Your task to perform on an android device: Open Amazon Image 0: 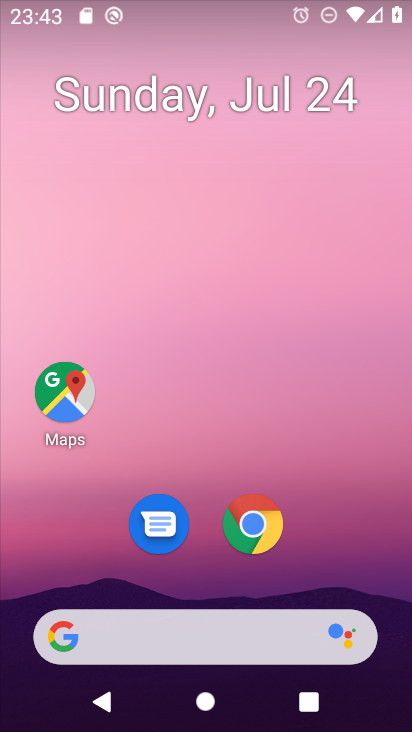
Step 0: press home button
Your task to perform on an android device: Open Amazon Image 1: 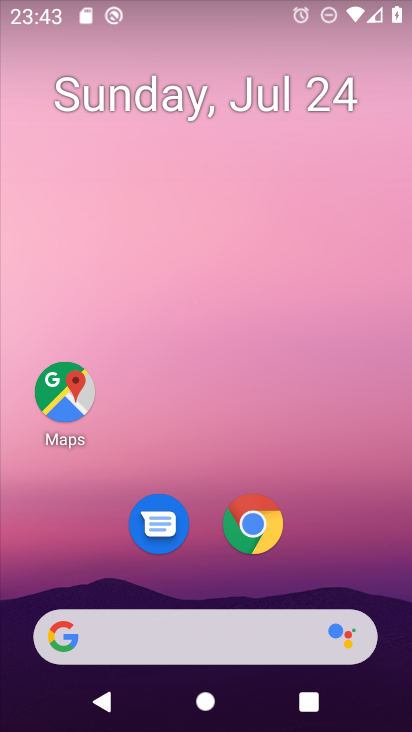
Step 1: click (245, 522)
Your task to perform on an android device: Open Amazon Image 2: 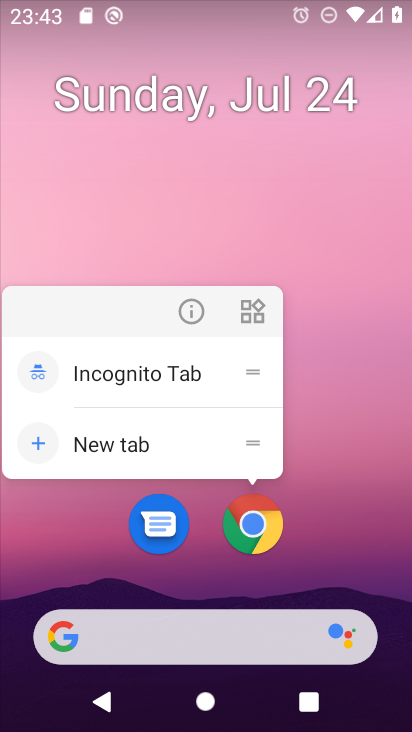
Step 2: click (243, 515)
Your task to perform on an android device: Open Amazon Image 3: 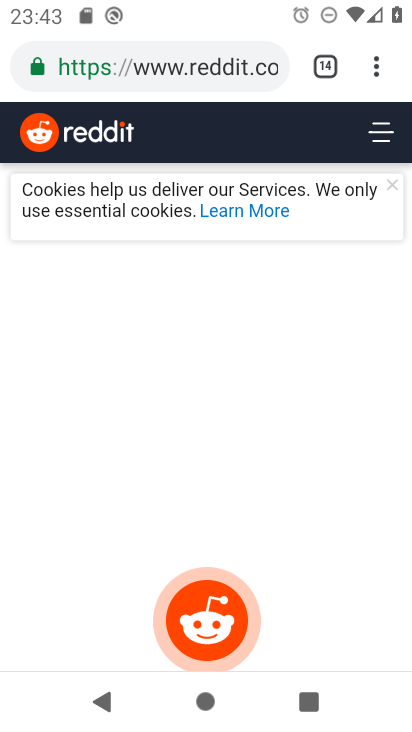
Step 3: drag from (374, 61) to (186, 128)
Your task to perform on an android device: Open Amazon Image 4: 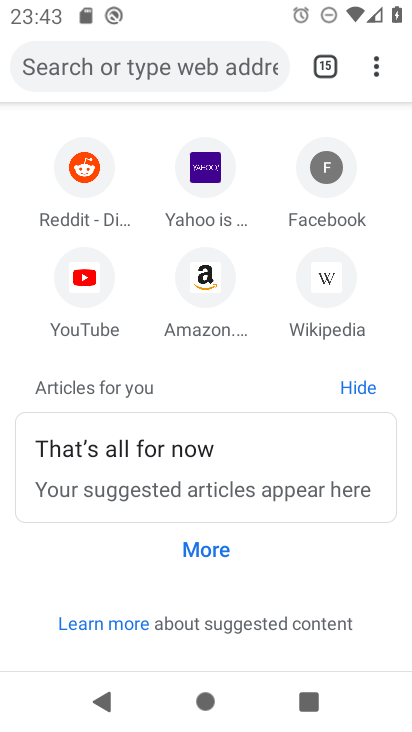
Step 4: click (195, 279)
Your task to perform on an android device: Open Amazon Image 5: 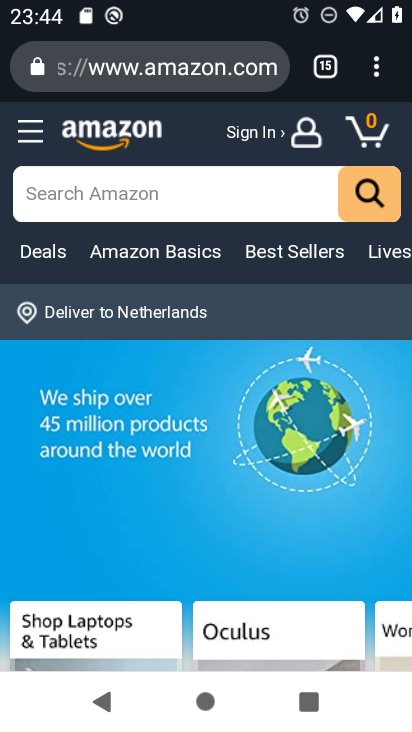
Step 5: task complete